Your task to perform on an android device: change text size in settings app Image 0: 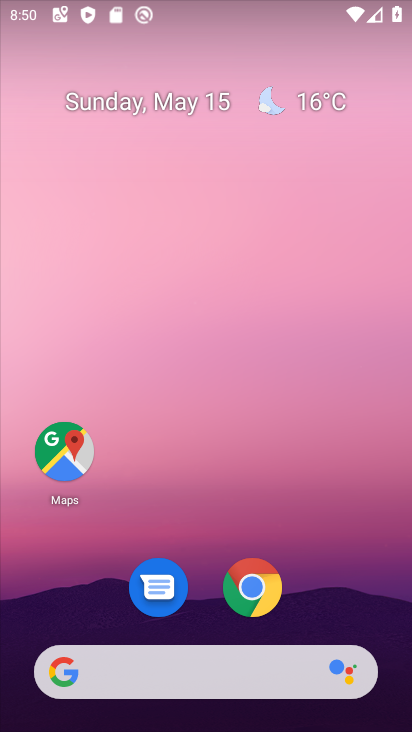
Step 0: drag from (345, 212) to (348, 149)
Your task to perform on an android device: change text size in settings app Image 1: 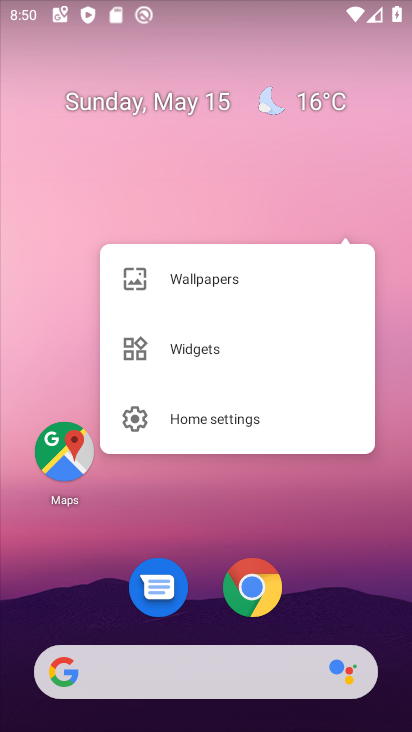
Step 1: click (342, 583)
Your task to perform on an android device: change text size in settings app Image 2: 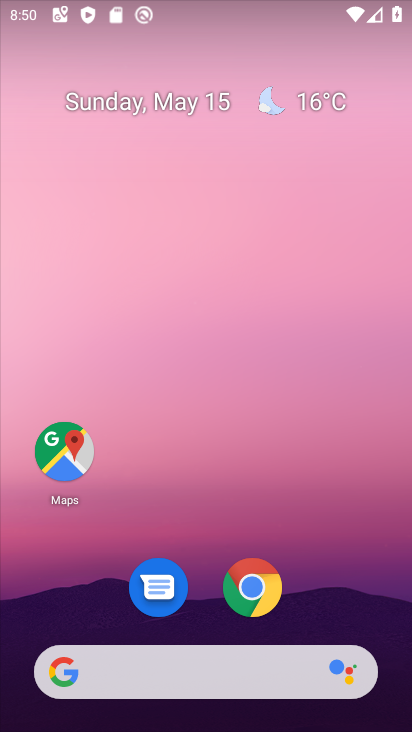
Step 2: click (348, 574)
Your task to perform on an android device: change text size in settings app Image 3: 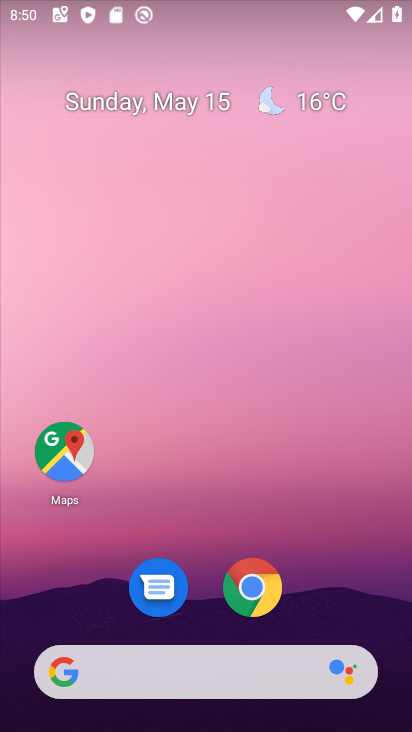
Step 3: click (348, 569)
Your task to perform on an android device: change text size in settings app Image 4: 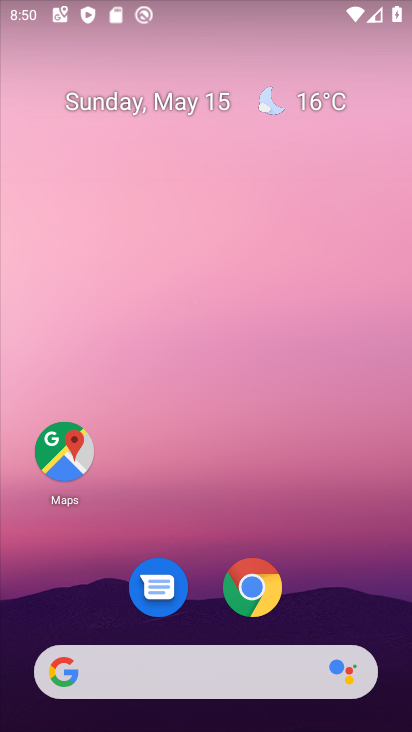
Step 4: drag from (357, 580) to (361, 36)
Your task to perform on an android device: change text size in settings app Image 5: 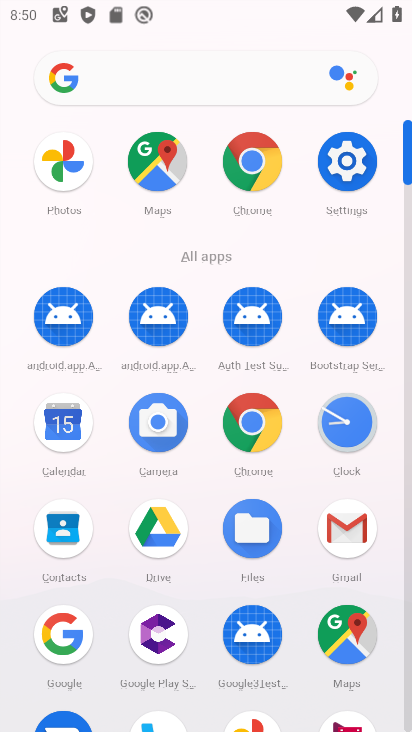
Step 5: click (347, 142)
Your task to perform on an android device: change text size in settings app Image 6: 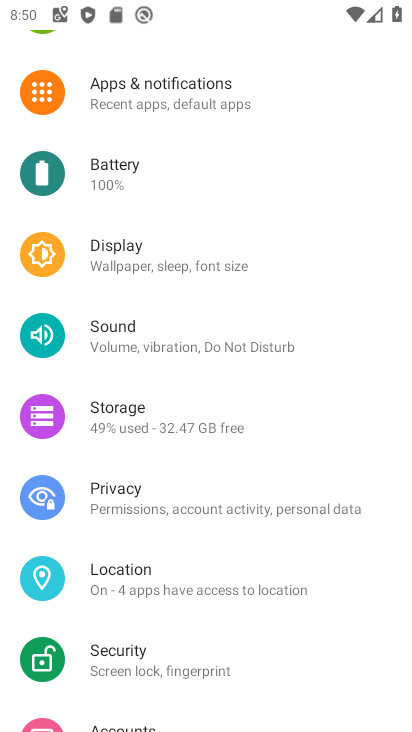
Step 6: click (170, 268)
Your task to perform on an android device: change text size in settings app Image 7: 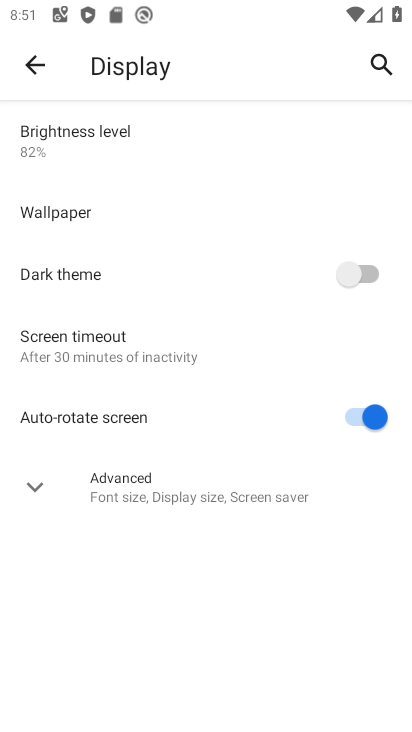
Step 7: click (160, 498)
Your task to perform on an android device: change text size in settings app Image 8: 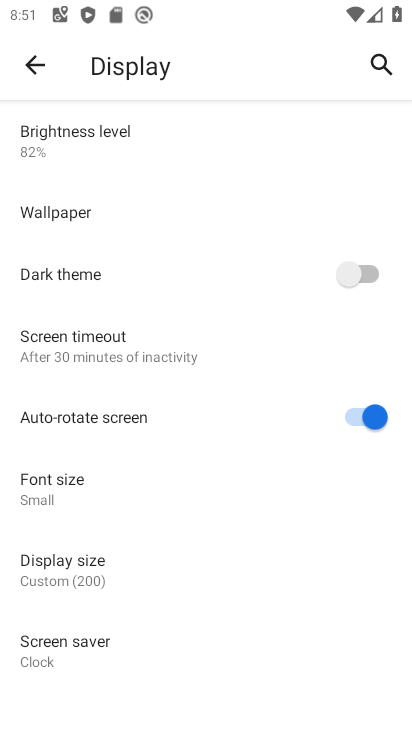
Step 8: click (66, 495)
Your task to perform on an android device: change text size in settings app Image 9: 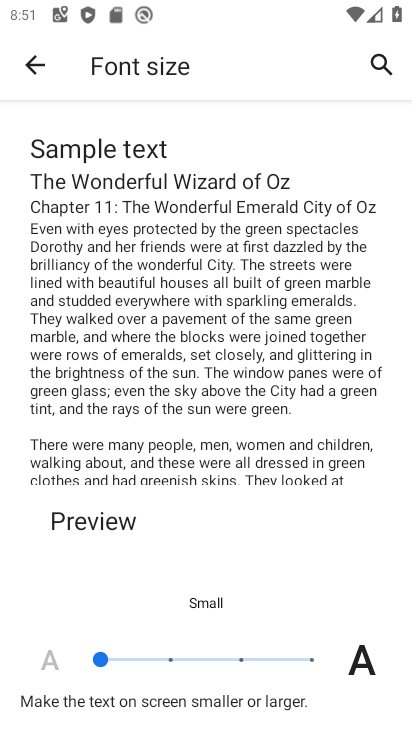
Step 9: click (135, 665)
Your task to perform on an android device: change text size in settings app Image 10: 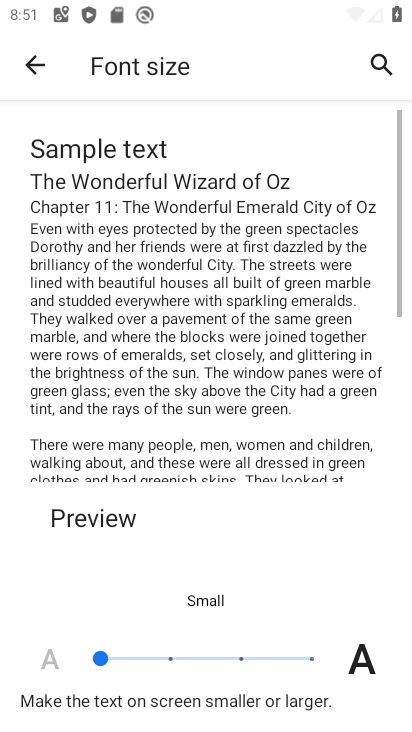
Step 10: click (162, 659)
Your task to perform on an android device: change text size in settings app Image 11: 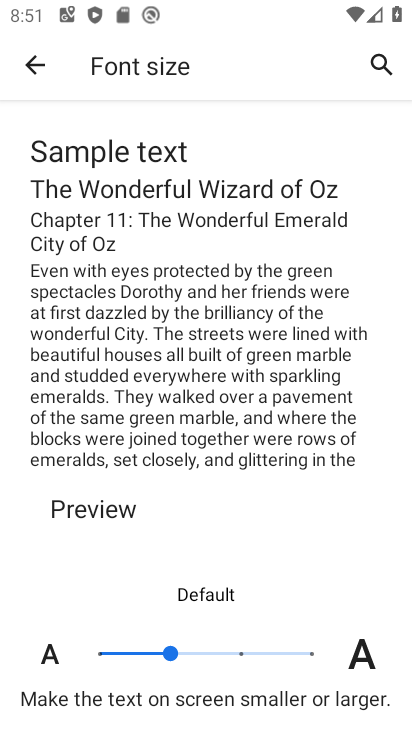
Step 11: task complete